Your task to perform on an android device: Go to Maps Image 0: 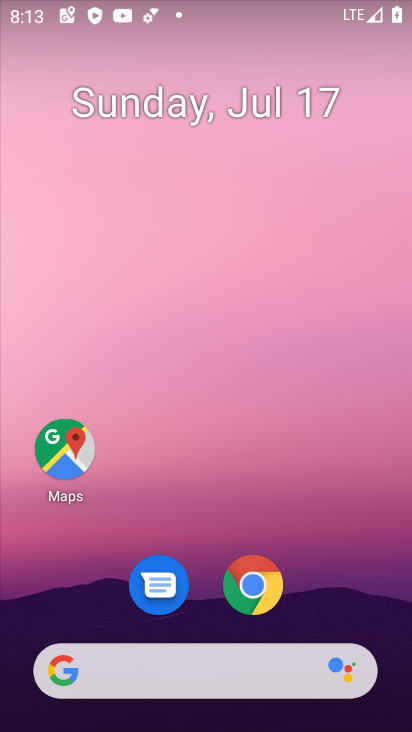
Step 0: click (59, 436)
Your task to perform on an android device: Go to Maps Image 1: 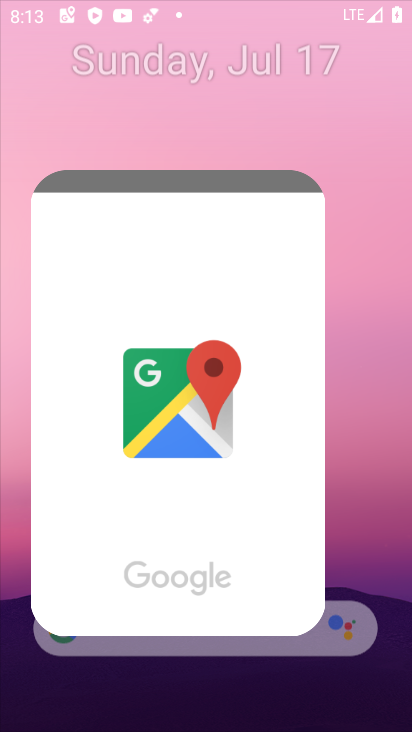
Step 1: click (59, 436)
Your task to perform on an android device: Go to Maps Image 2: 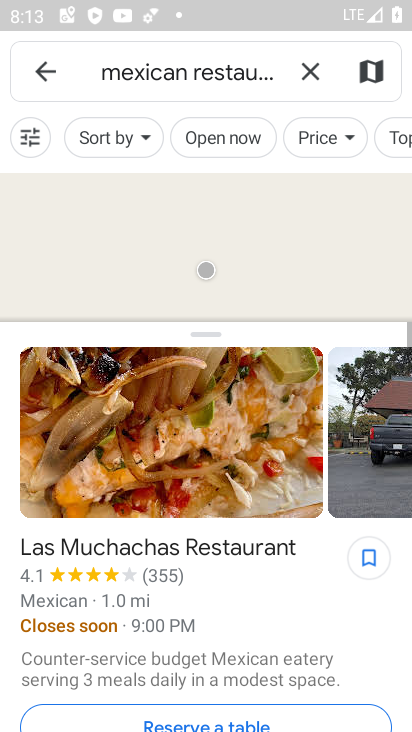
Step 2: click (305, 70)
Your task to perform on an android device: Go to Maps Image 3: 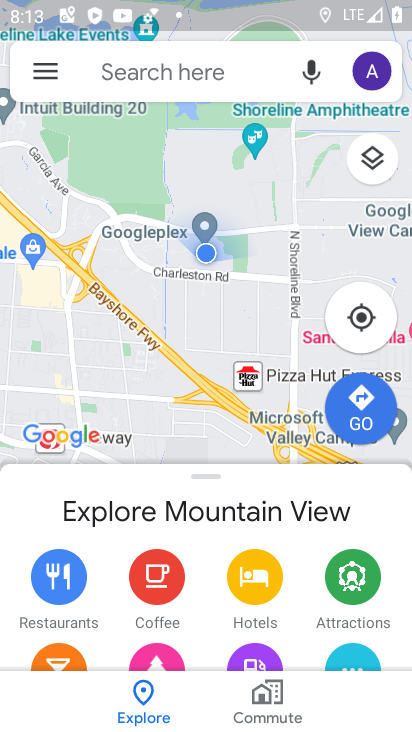
Step 3: task complete